Your task to perform on an android device: open a bookmark in the chrome app Image 0: 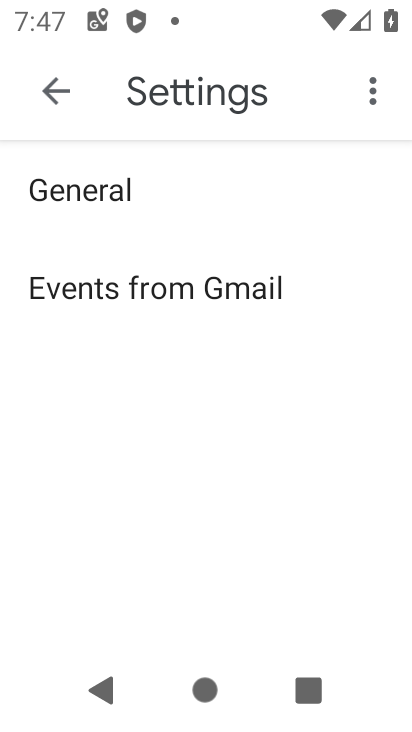
Step 0: press home button
Your task to perform on an android device: open a bookmark in the chrome app Image 1: 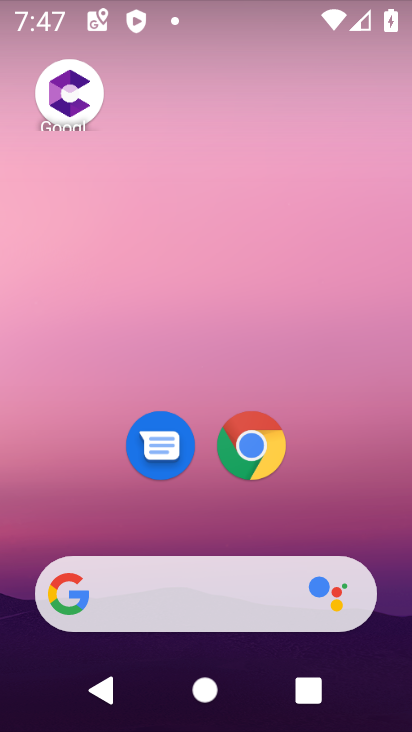
Step 1: drag from (282, 618) to (358, 118)
Your task to perform on an android device: open a bookmark in the chrome app Image 2: 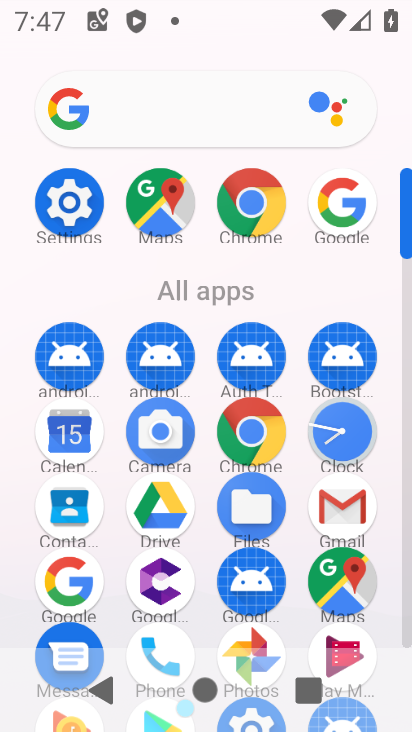
Step 2: click (258, 229)
Your task to perform on an android device: open a bookmark in the chrome app Image 3: 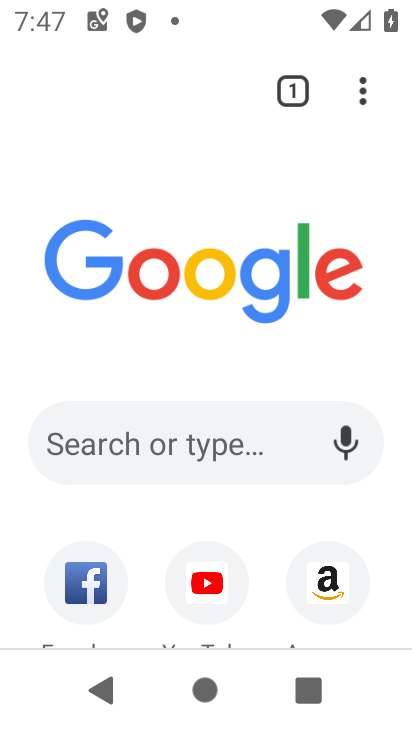
Step 3: click (371, 103)
Your task to perform on an android device: open a bookmark in the chrome app Image 4: 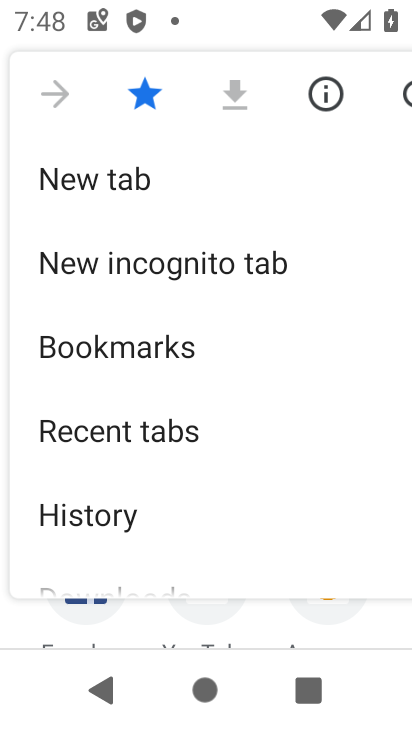
Step 4: click (191, 348)
Your task to perform on an android device: open a bookmark in the chrome app Image 5: 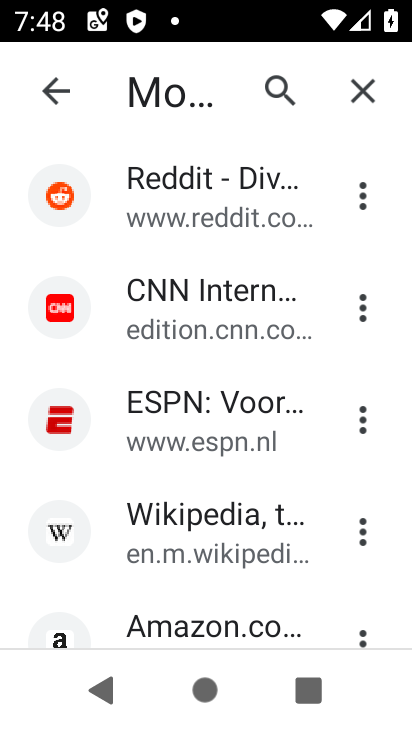
Step 5: click (157, 423)
Your task to perform on an android device: open a bookmark in the chrome app Image 6: 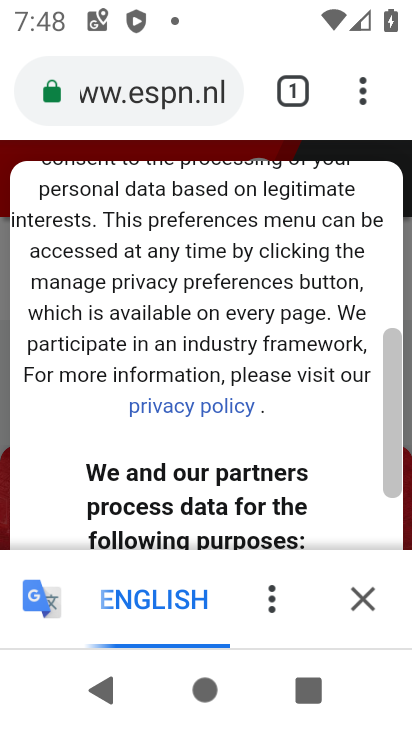
Step 6: task complete